Your task to perform on an android device: change alarm snooze length Image 0: 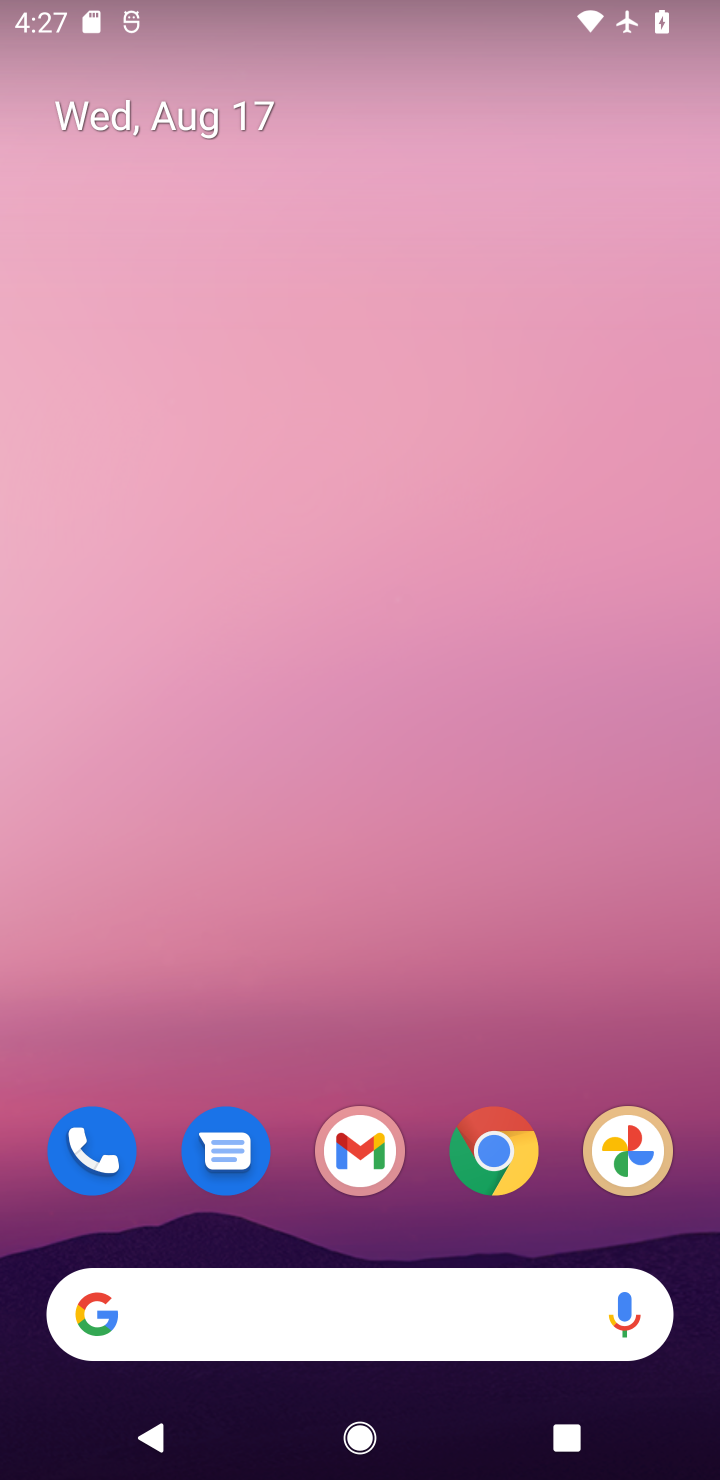
Step 0: drag from (364, 1204) to (259, 101)
Your task to perform on an android device: change alarm snooze length Image 1: 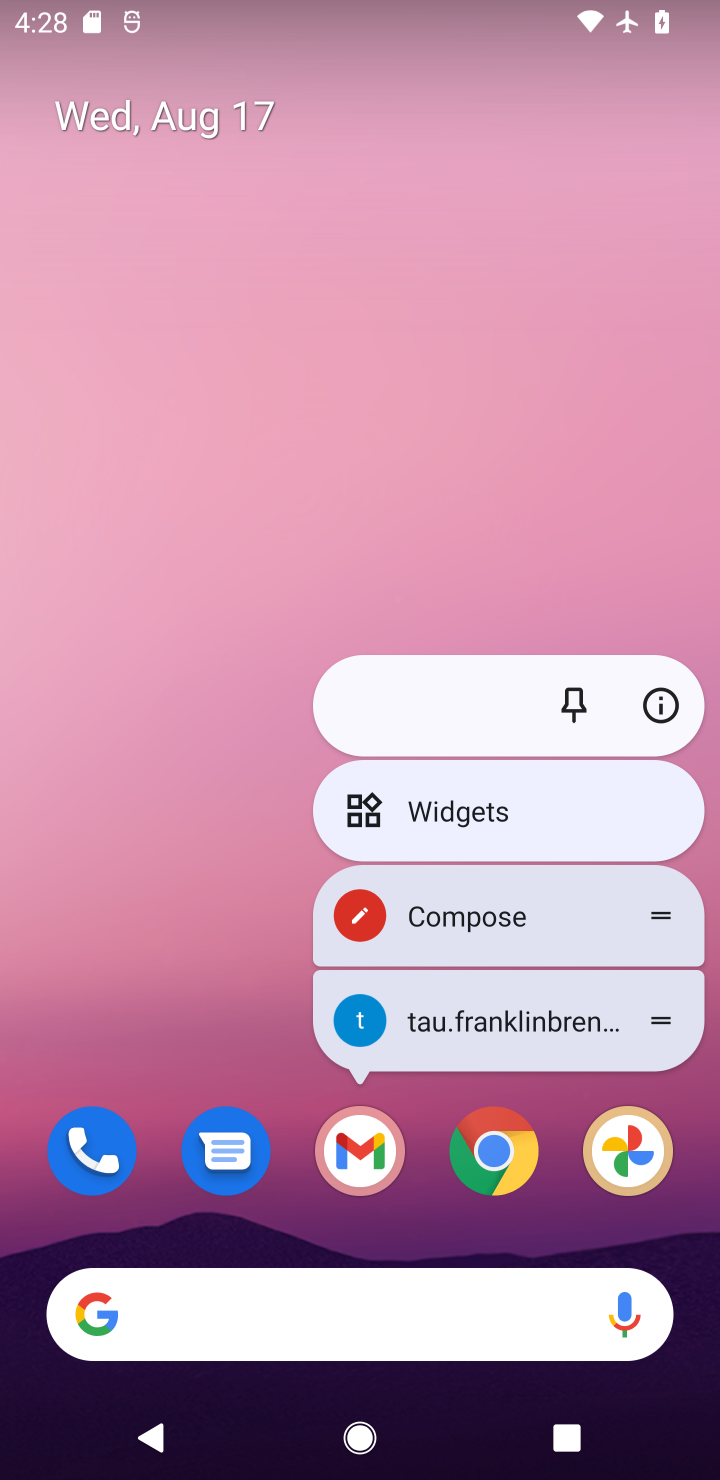
Step 1: click (71, 708)
Your task to perform on an android device: change alarm snooze length Image 2: 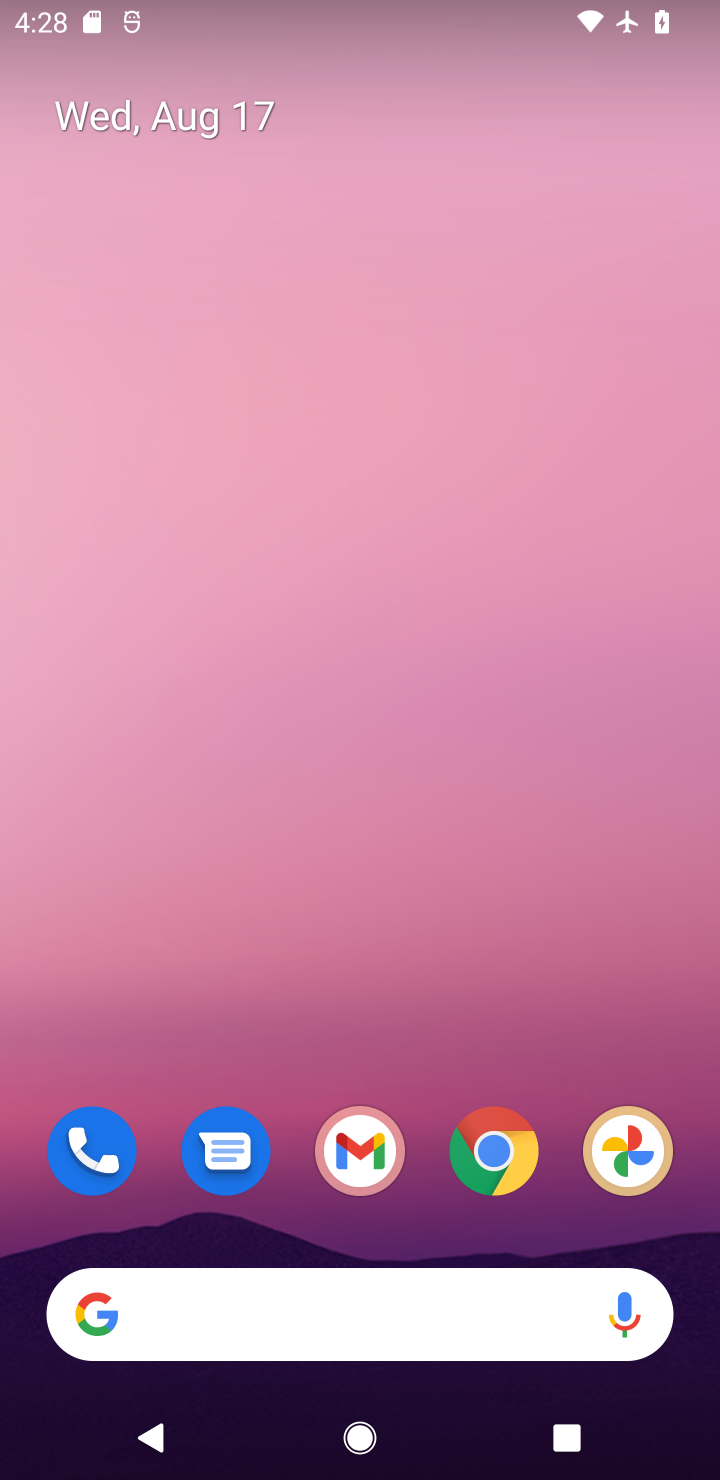
Step 2: drag from (412, 1266) to (228, 191)
Your task to perform on an android device: change alarm snooze length Image 3: 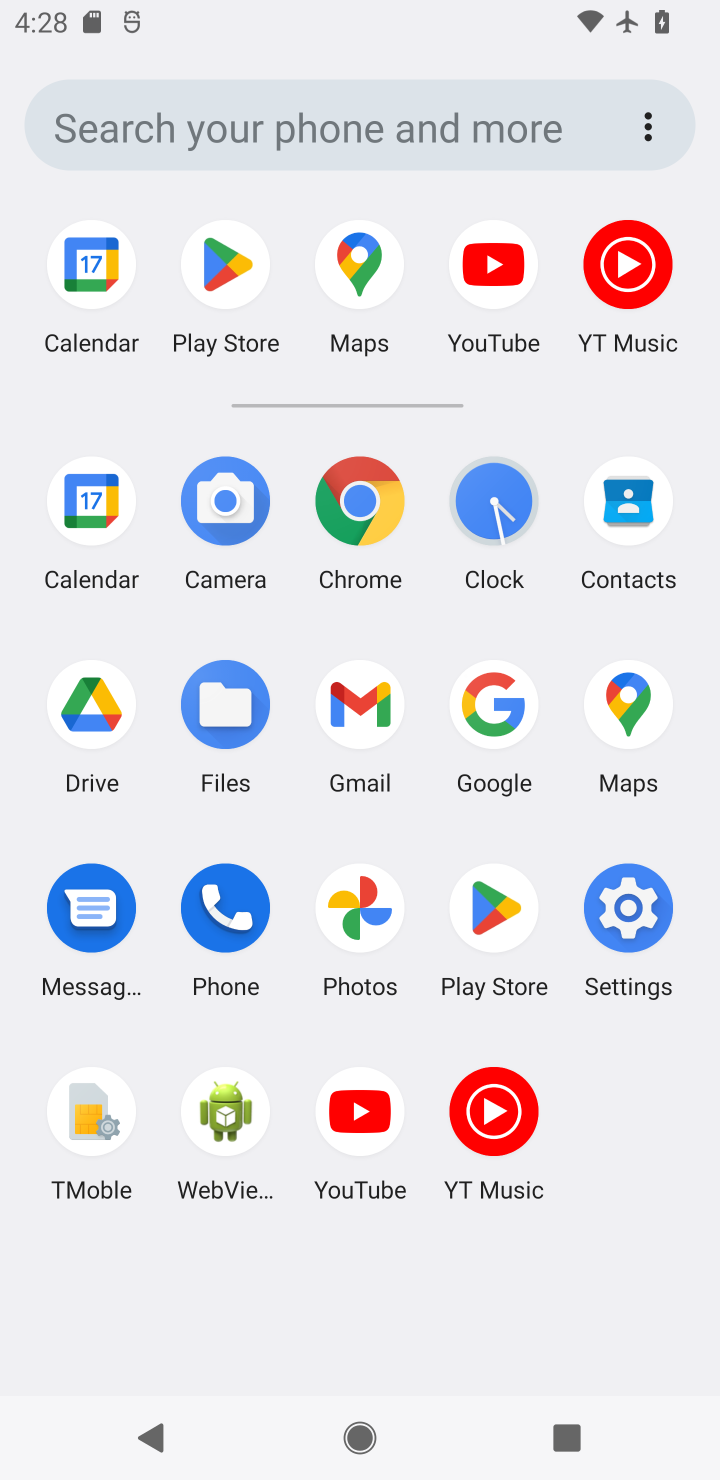
Step 3: click (492, 495)
Your task to perform on an android device: change alarm snooze length Image 4: 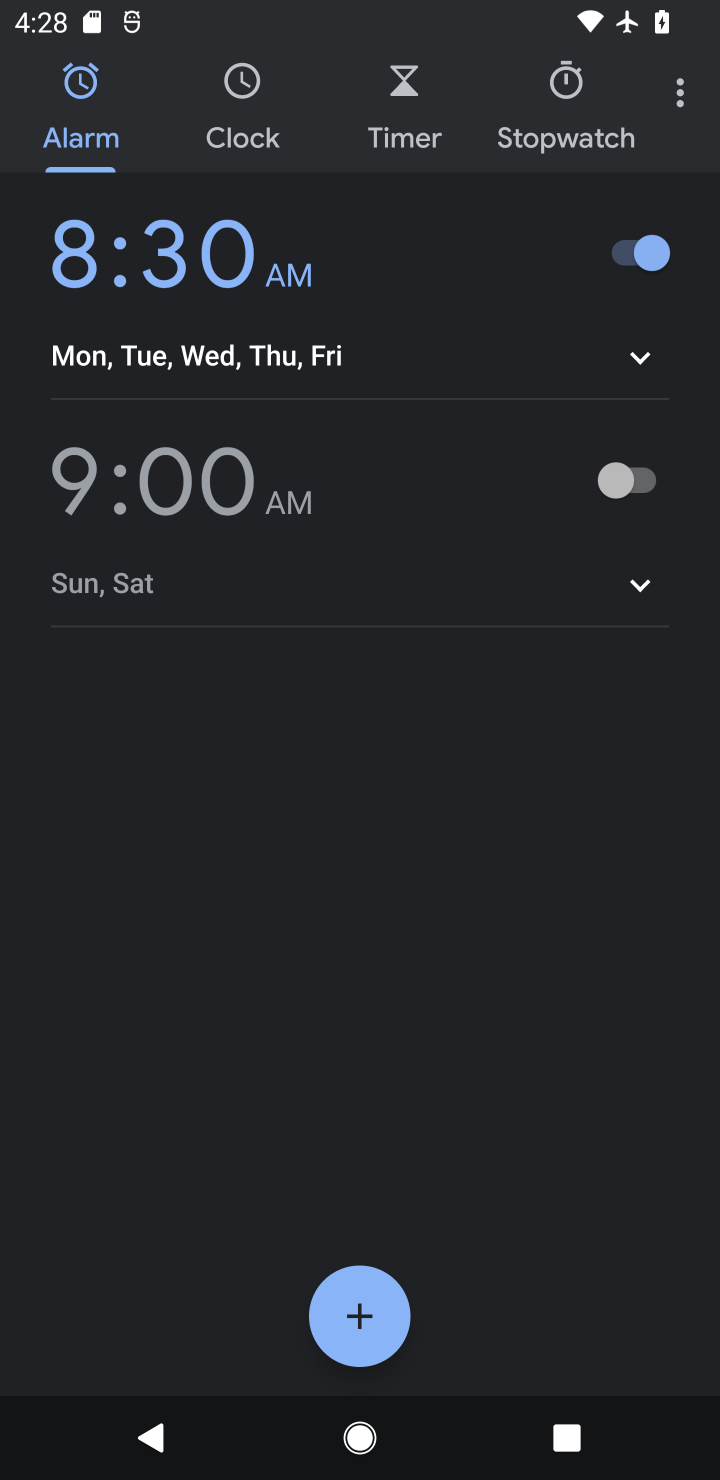
Step 4: click (672, 104)
Your task to perform on an android device: change alarm snooze length Image 5: 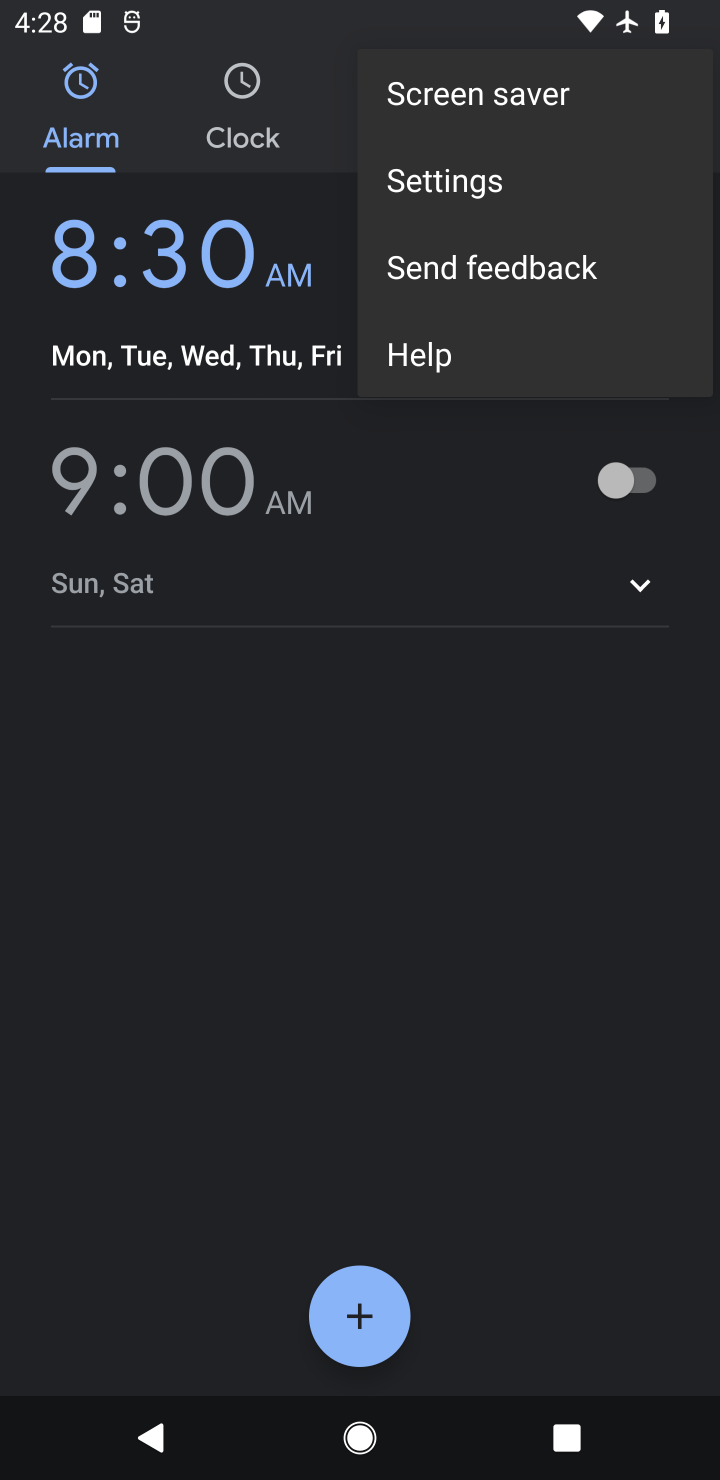
Step 5: click (498, 177)
Your task to perform on an android device: change alarm snooze length Image 6: 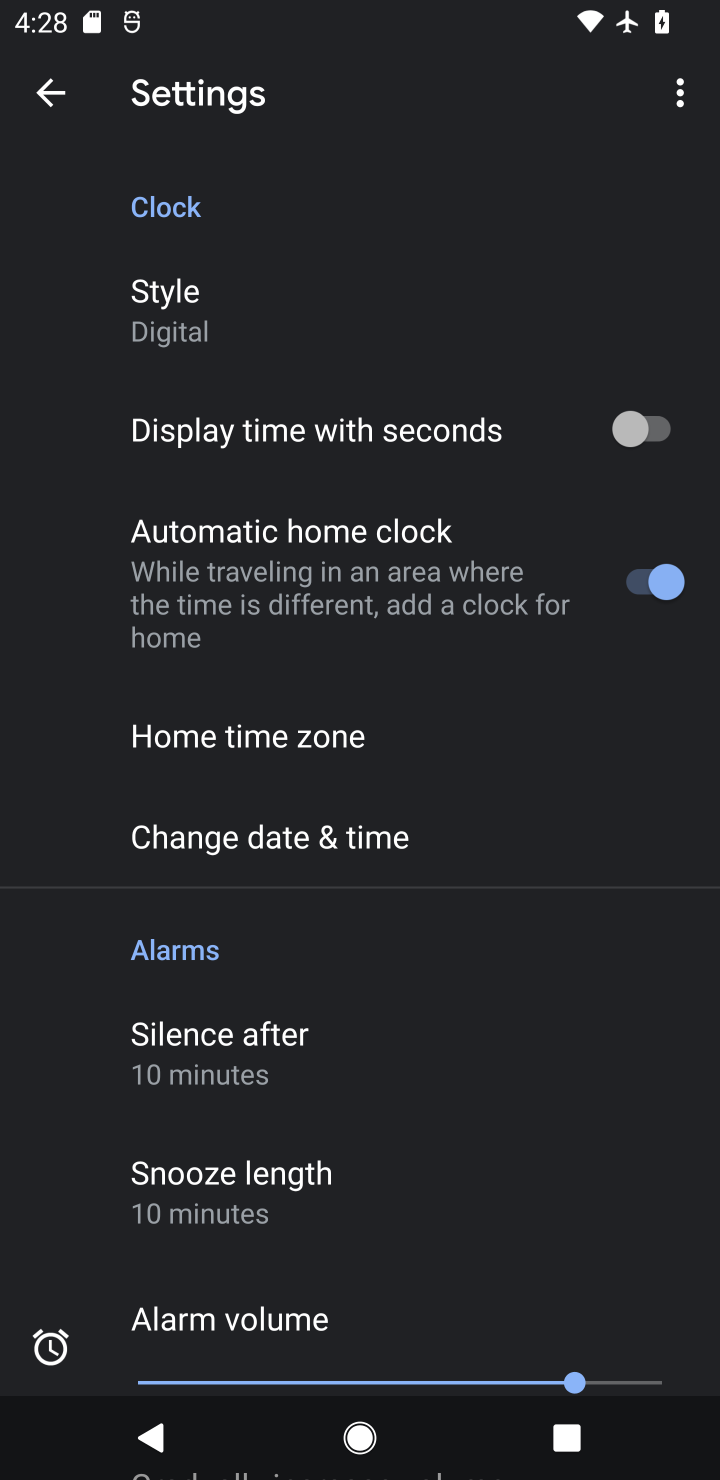
Step 6: click (270, 1173)
Your task to perform on an android device: change alarm snooze length Image 7: 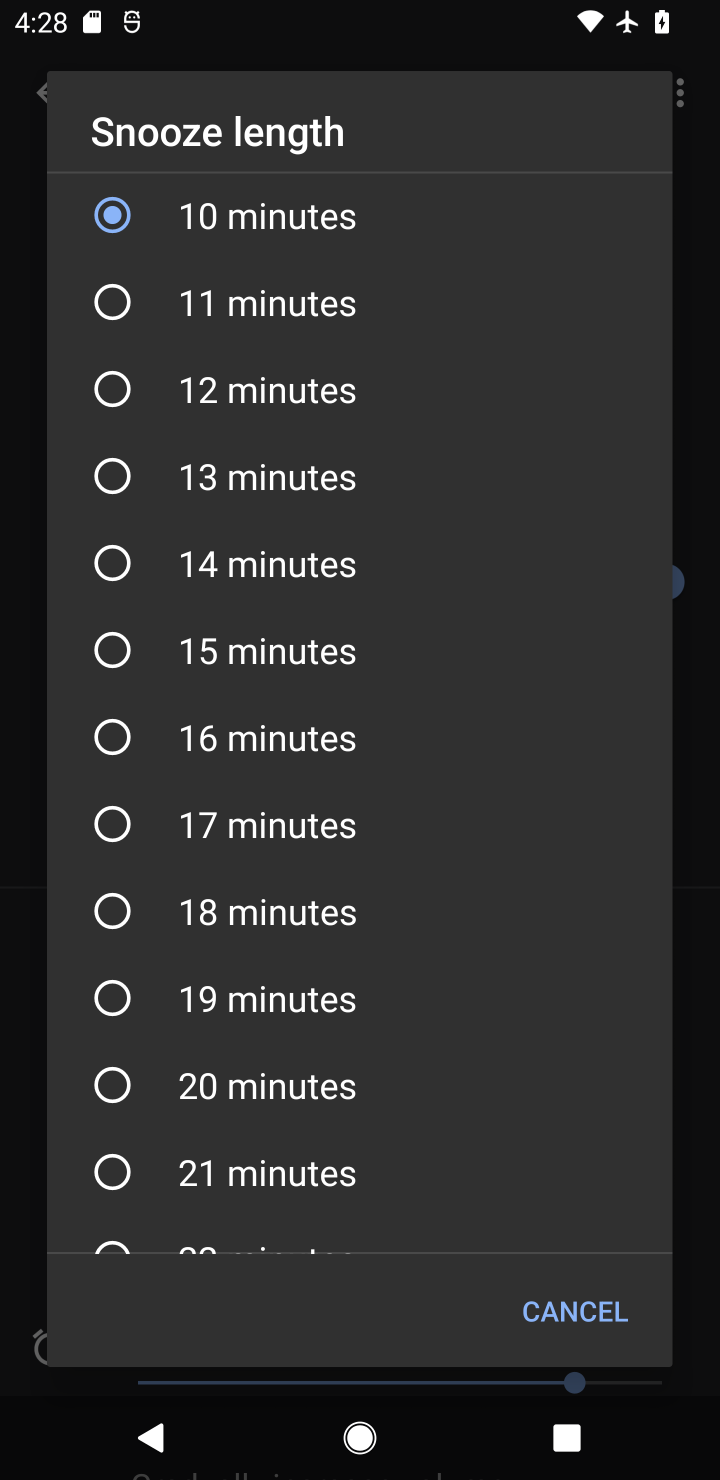
Step 7: click (244, 1064)
Your task to perform on an android device: change alarm snooze length Image 8: 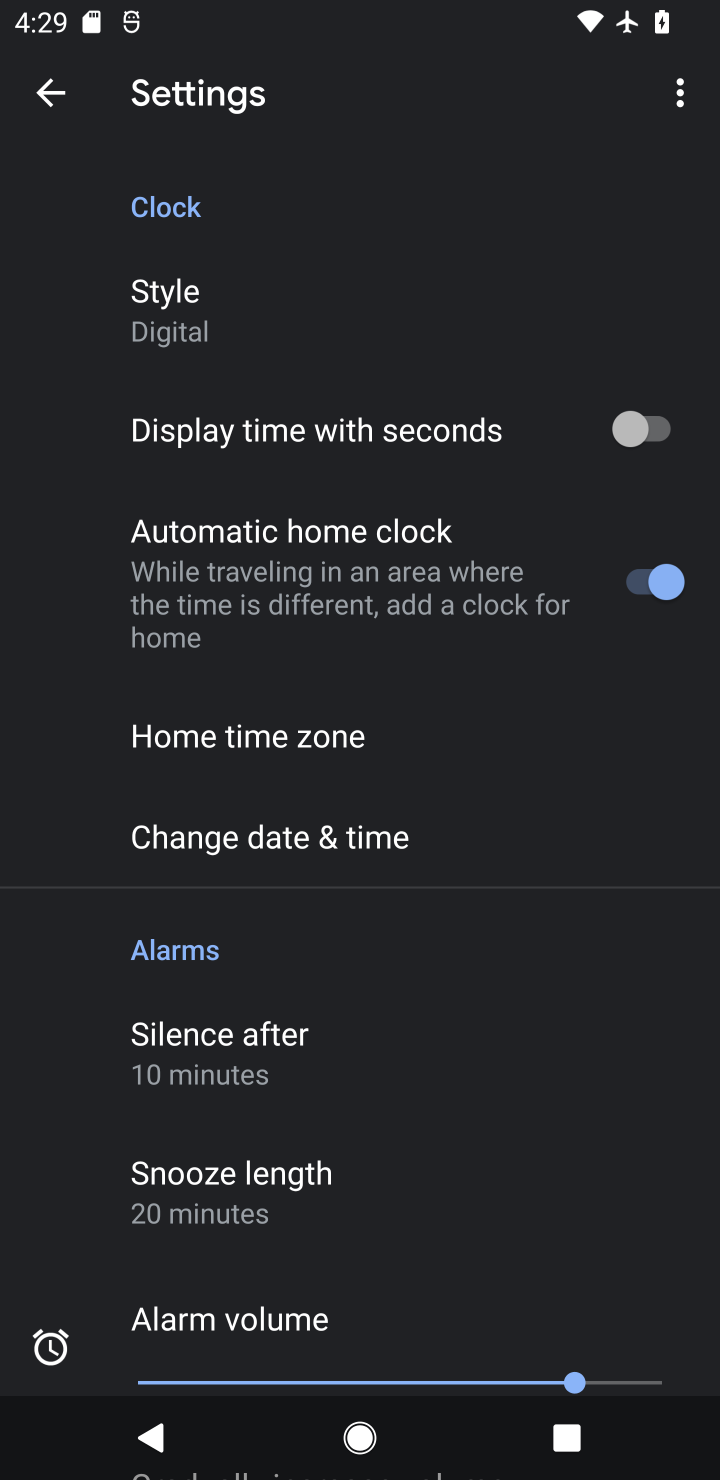
Step 8: task complete